Your task to perform on an android device: set the timer Image 0: 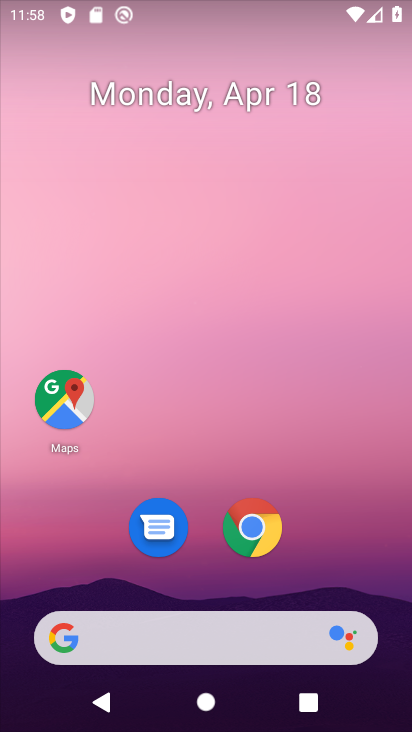
Step 0: drag from (325, 541) to (384, 10)
Your task to perform on an android device: set the timer Image 1: 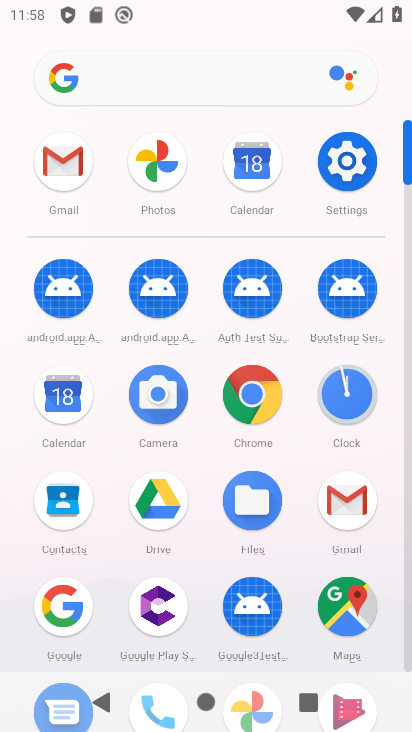
Step 1: click (354, 395)
Your task to perform on an android device: set the timer Image 2: 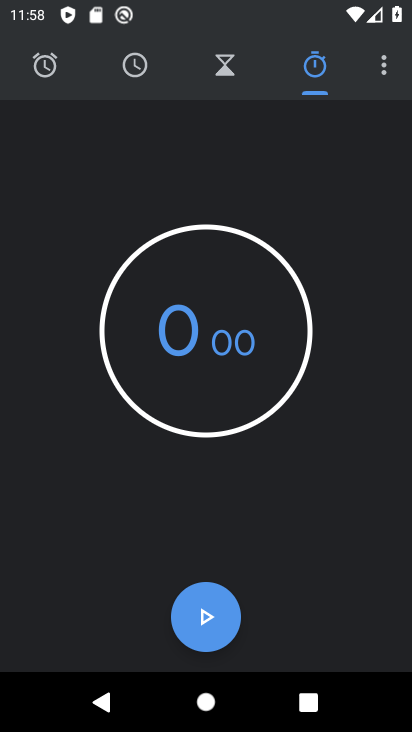
Step 2: click (218, 75)
Your task to perform on an android device: set the timer Image 3: 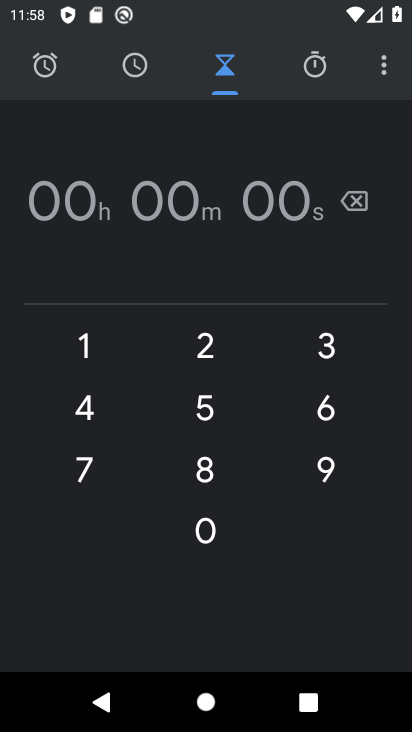
Step 3: click (212, 469)
Your task to perform on an android device: set the timer Image 4: 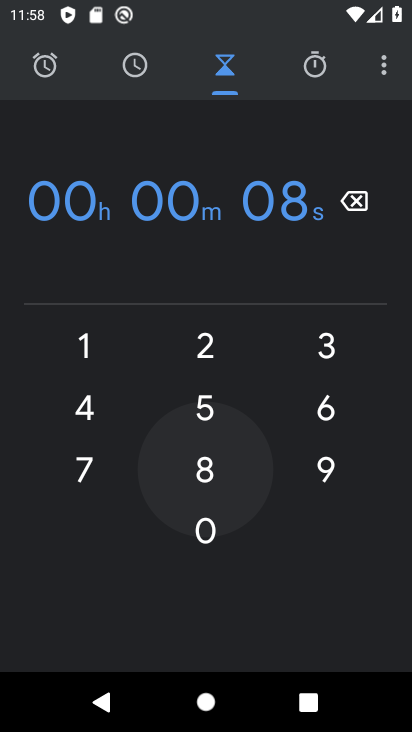
Step 4: click (209, 412)
Your task to perform on an android device: set the timer Image 5: 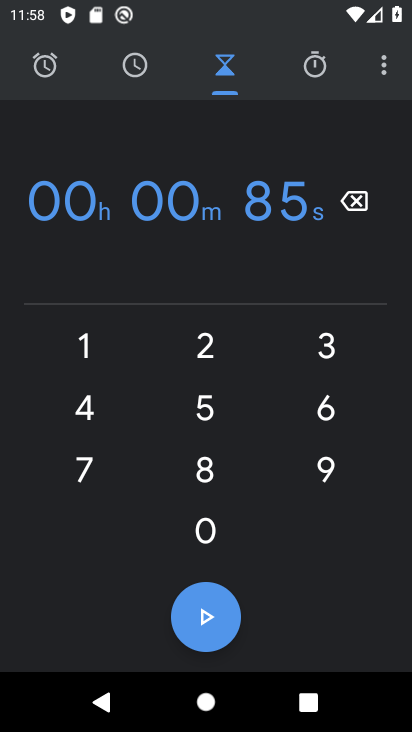
Step 5: click (194, 334)
Your task to perform on an android device: set the timer Image 6: 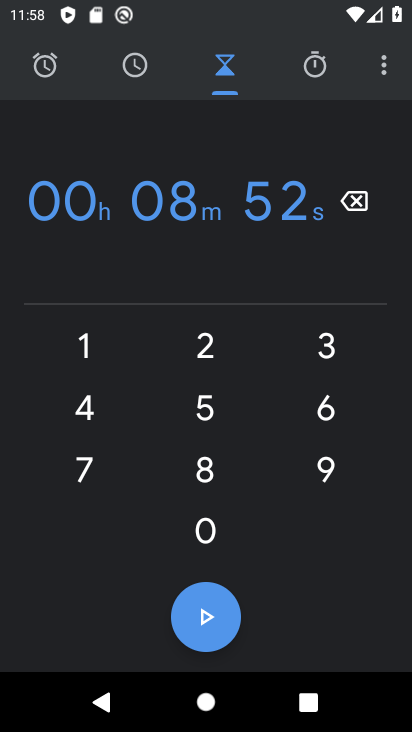
Step 6: click (292, 350)
Your task to perform on an android device: set the timer Image 7: 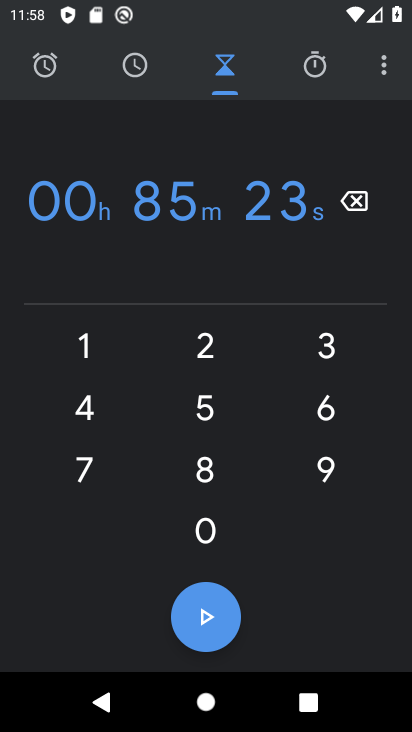
Step 7: click (299, 412)
Your task to perform on an android device: set the timer Image 8: 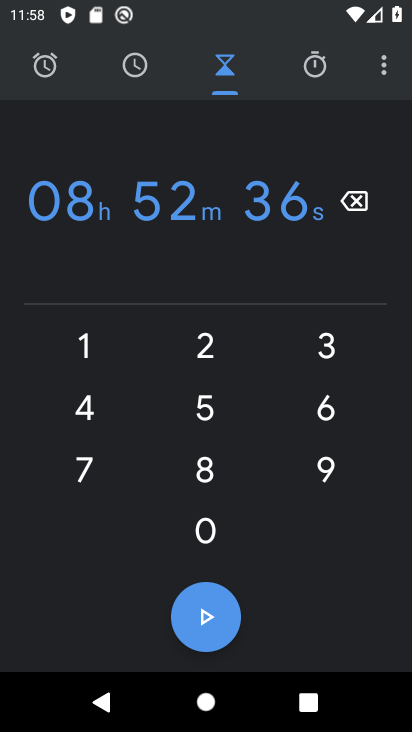
Step 8: click (319, 459)
Your task to perform on an android device: set the timer Image 9: 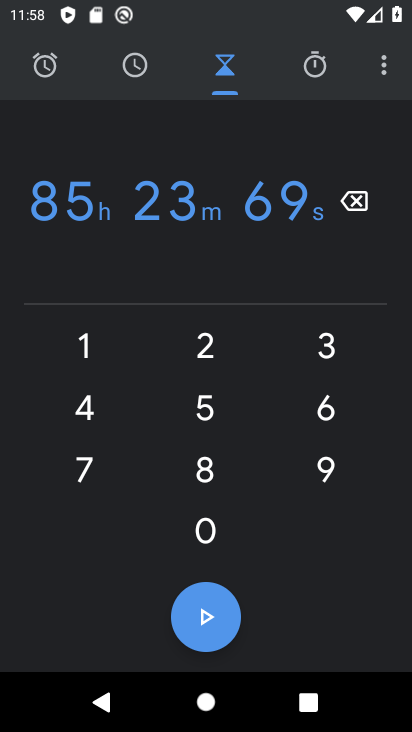
Step 9: click (204, 619)
Your task to perform on an android device: set the timer Image 10: 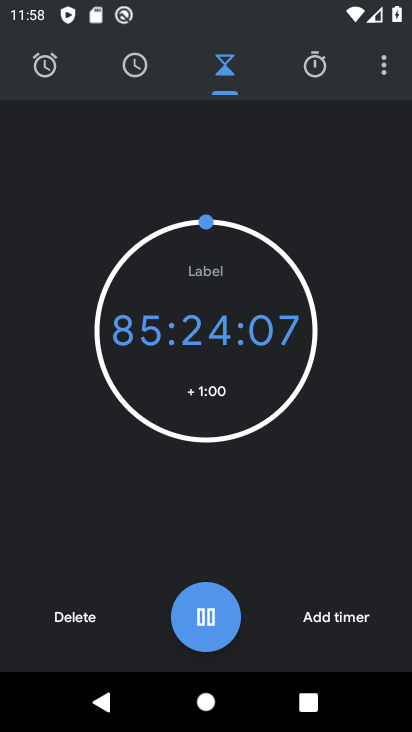
Step 10: task complete